Your task to perform on an android device: show emergency info Image 0: 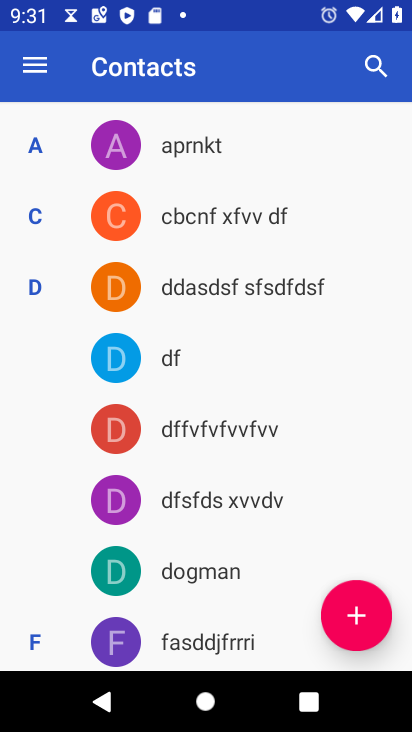
Step 0: press home button
Your task to perform on an android device: show emergency info Image 1: 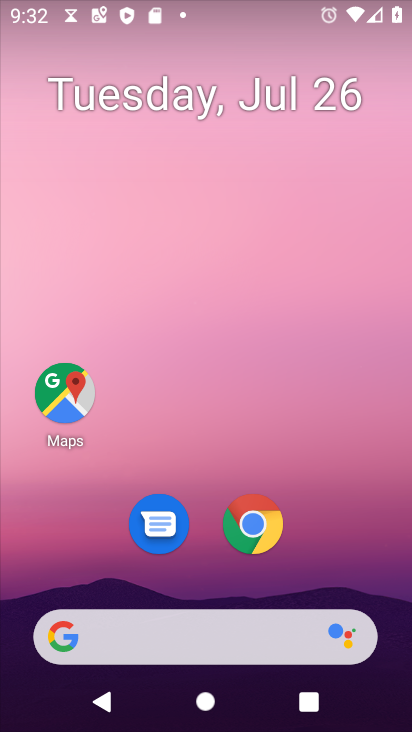
Step 1: drag from (235, 644) to (354, 164)
Your task to perform on an android device: show emergency info Image 2: 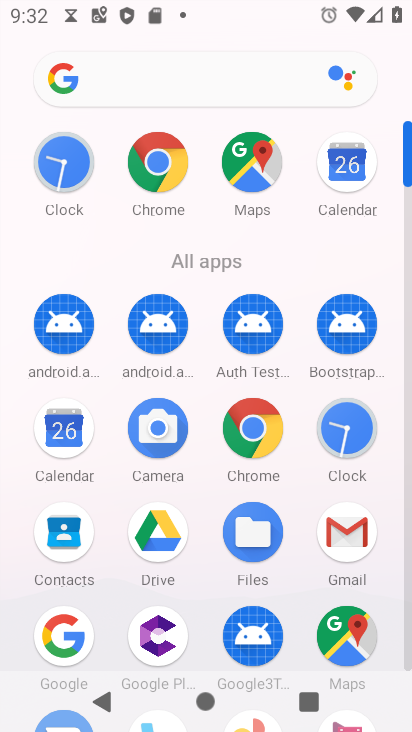
Step 2: click (150, 169)
Your task to perform on an android device: show emergency info Image 3: 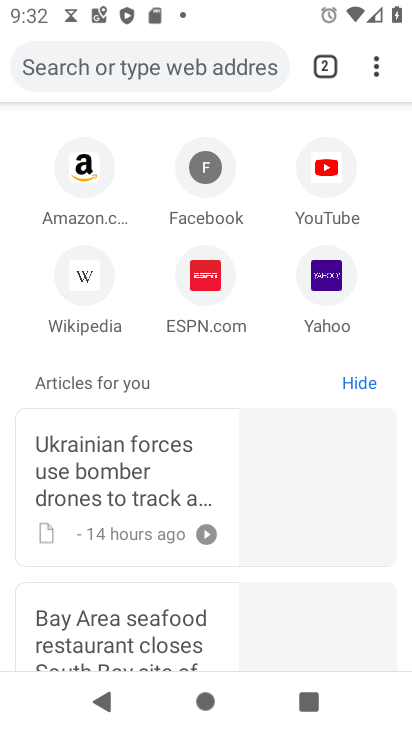
Step 3: press home button
Your task to perform on an android device: show emergency info Image 4: 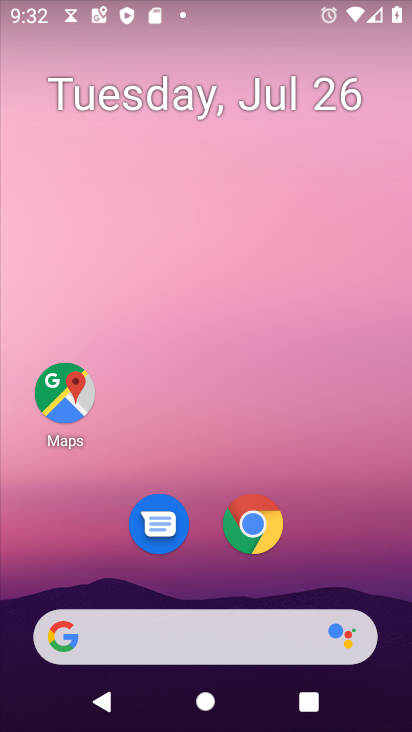
Step 4: drag from (215, 633) to (354, 121)
Your task to perform on an android device: show emergency info Image 5: 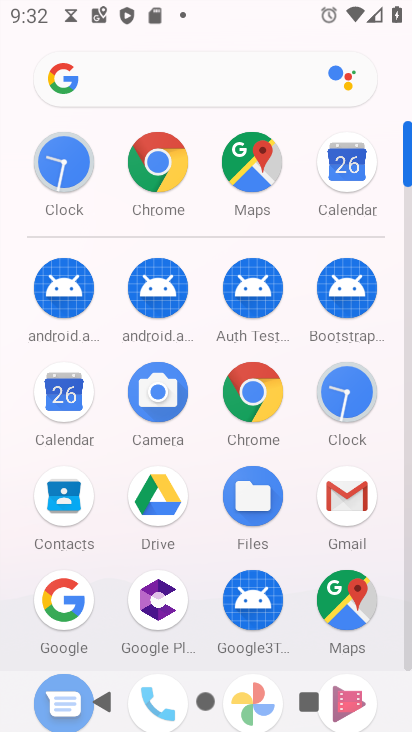
Step 5: drag from (205, 587) to (356, 126)
Your task to perform on an android device: show emergency info Image 6: 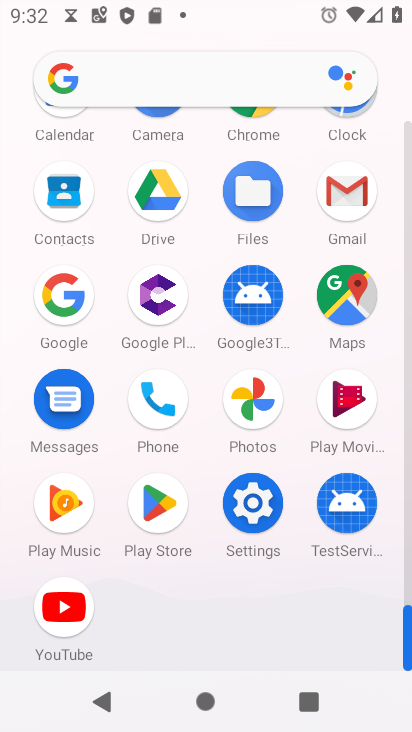
Step 6: click (250, 503)
Your task to perform on an android device: show emergency info Image 7: 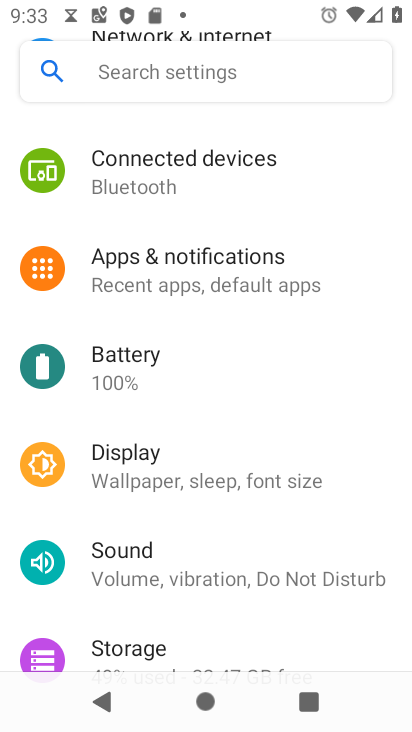
Step 7: drag from (217, 555) to (365, 148)
Your task to perform on an android device: show emergency info Image 8: 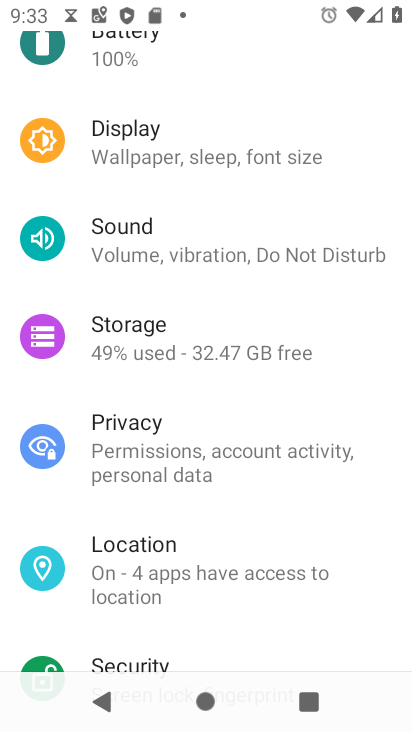
Step 8: drag from (247, 124) to (365, 132)
Your task to perform on an android device: show emergency info Image 9: 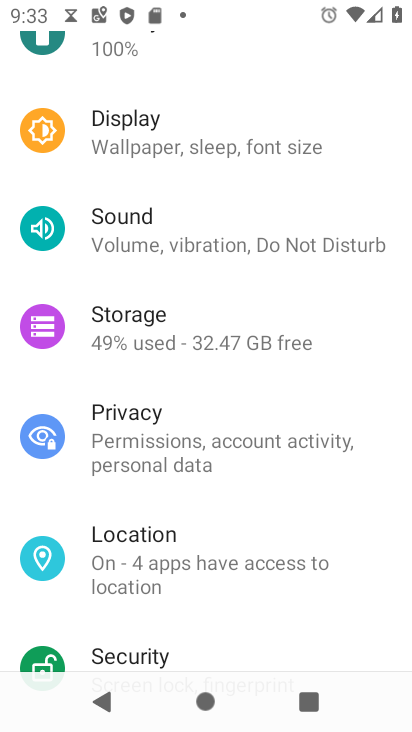
Step 9: drag from (214, 628) to (397, 127)
Your task to perform on an android device: show emergency info Image 10: 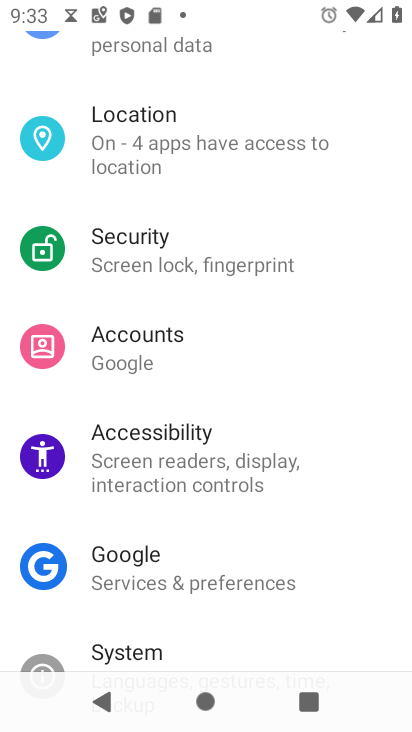
Step 10: drag from (200, 636) to (382, 86)
Your task to perform on an android device: show emergency info Image 11: 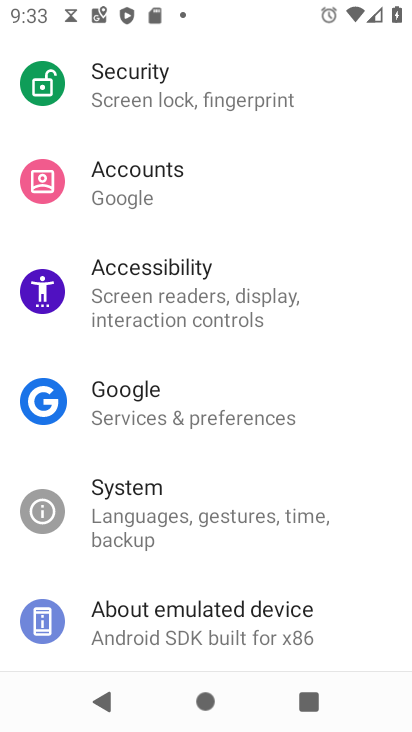
Step 11: click (150, 626)
Your task to perform on an android device: show emergency info Image 12: 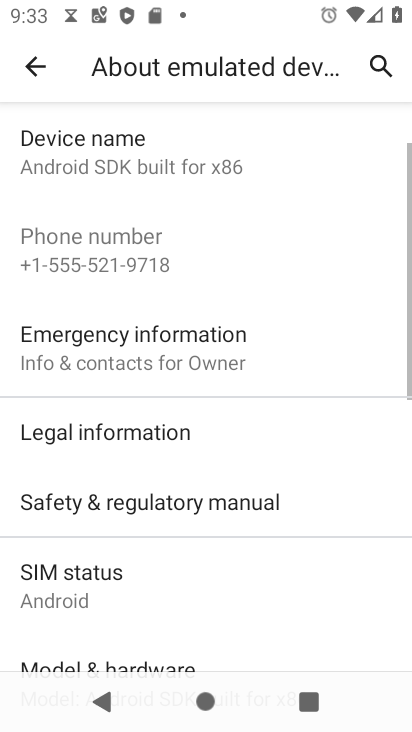
Step 12: click (156, 352)
Your task to perform on an android device: show emergency info Image 13: 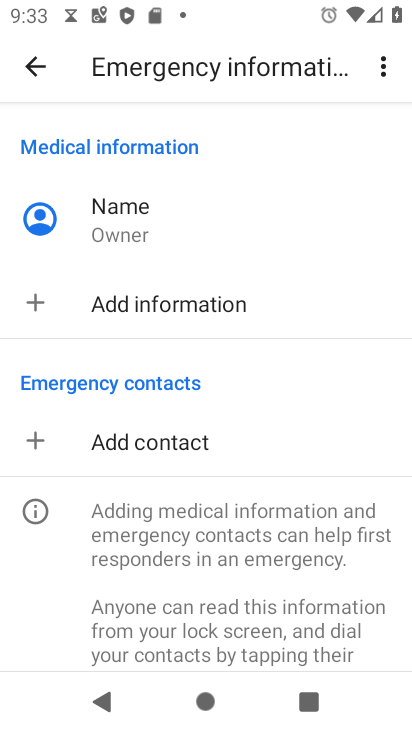
Step 13: task complete